Your task to perform on an android device: turn on translation in the chrome app Image 0: 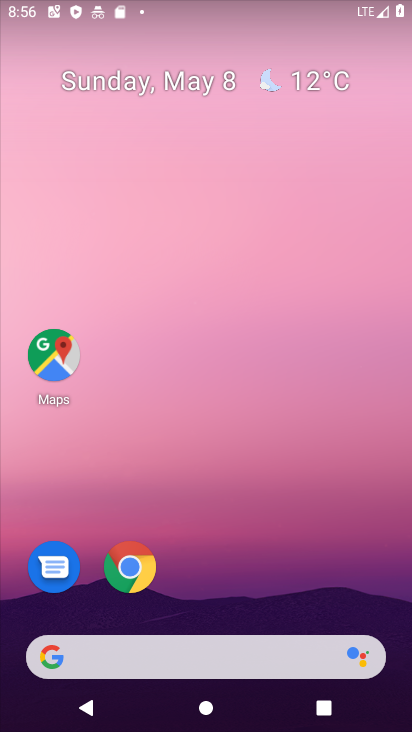
Step 0: click (122, 589)
Your task to perform on an android device: turn on translation in the chrome app Image 1: 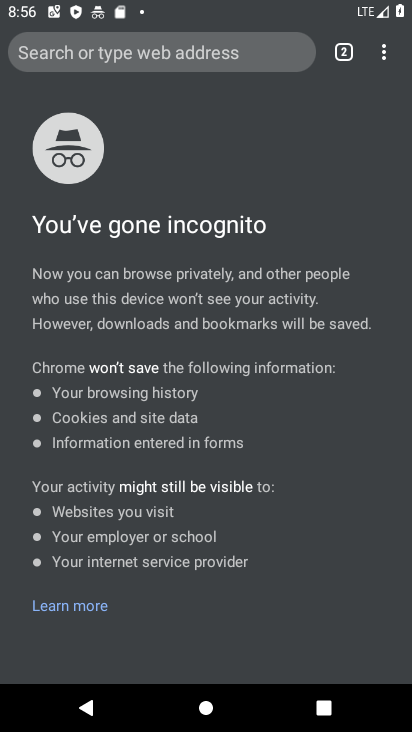
Step 1: drag from (384, 55) to (262, 447)
Your task to perform on an android device: turn on translation in the chrome app Image 2: 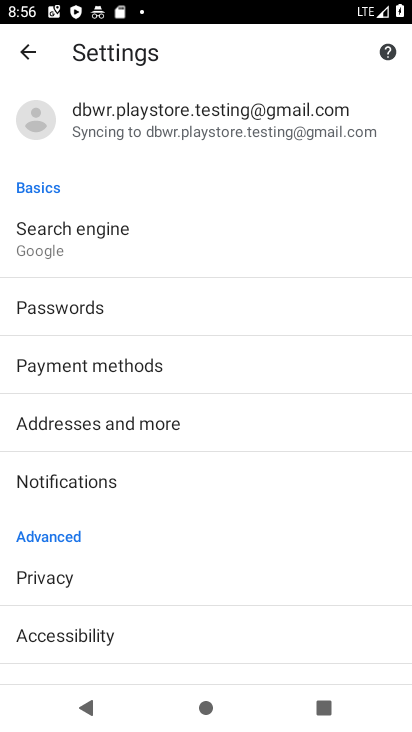
Step 2: drag from (111, 581) to (92, 16)
Your task to perform on an android device: turn on translation in the chrome app Image 3: 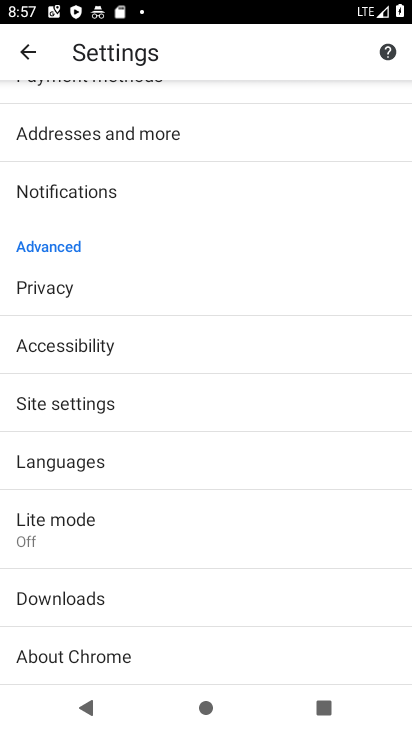
Step 3: drag from (59, 543) to (12, 22)
Your task to perform on an android device: turn on translation in the chrome app Image 4: 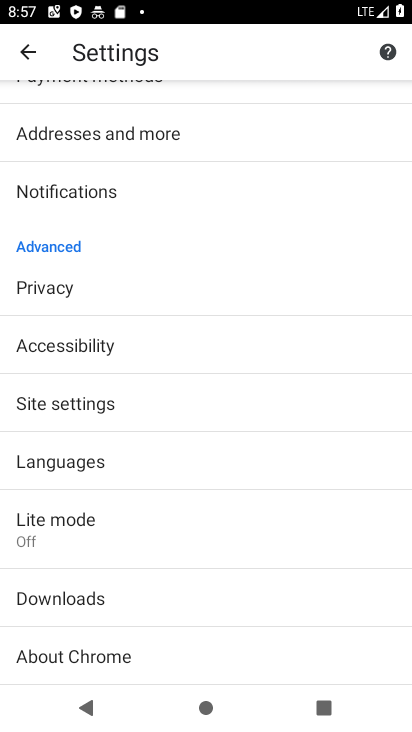
Step 4: drag from (151, 245) to (100, 727)
Your task to perform on an android device: turn on translation in the chrome app Image 5: 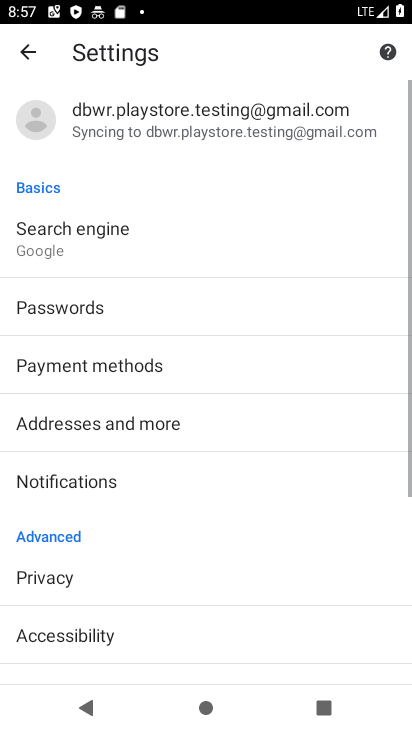
Step 5: drag from (130, 539) to (110, 72)
Your task to perform on an android device: turn on translation in the chrome app Image 6: 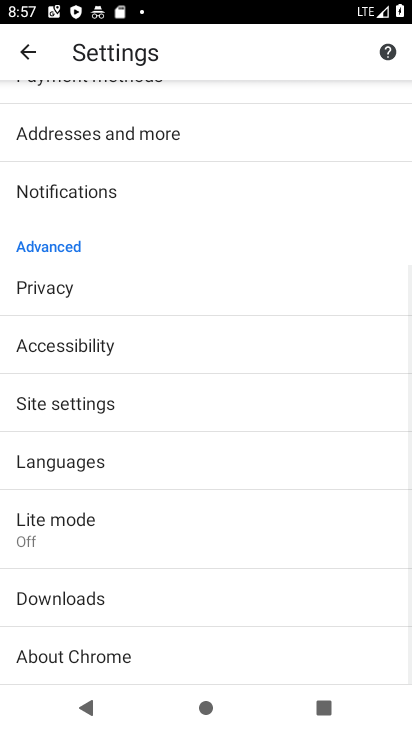
Step 6: click (74, 460)
Your task to perform on an android device: turn on translation in the chrome app Image 7: 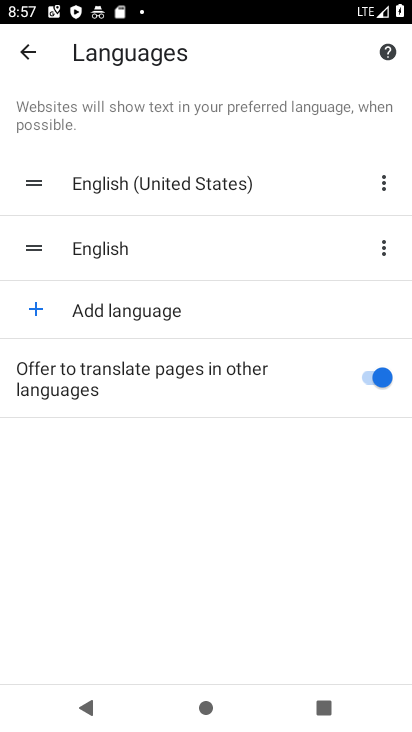
Step 7: task complete